Your task to perform on an android device: add a label to a message in the gmail app Image 0: 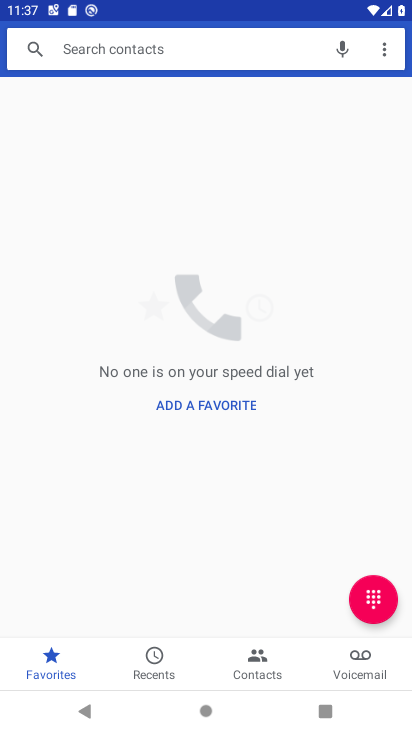
Step 0: press back button
Your task to perform on an android device: add a label to a message in the gmail app Image 1: 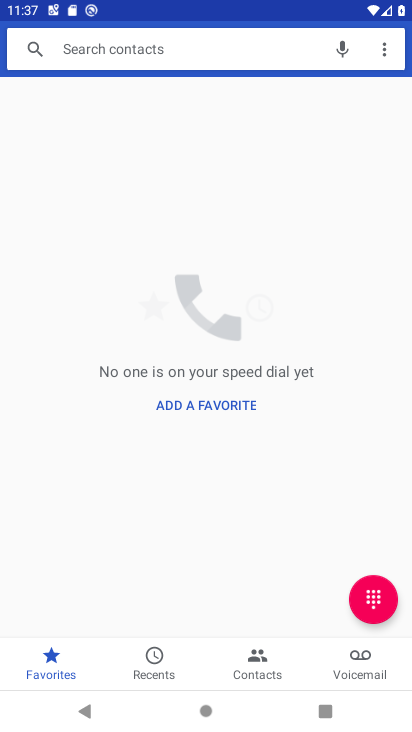
Step 1: press back button
Your task to perform on an android device: add a label to a message in the gmail app Image 2: 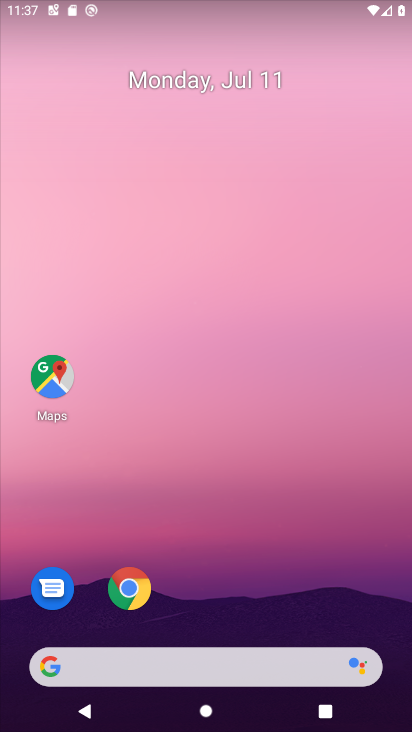
Step 2: drag from (289, 677) to (264, 177)
Your task to perform on an android device: add a label to a message in the gmail app Image 3: 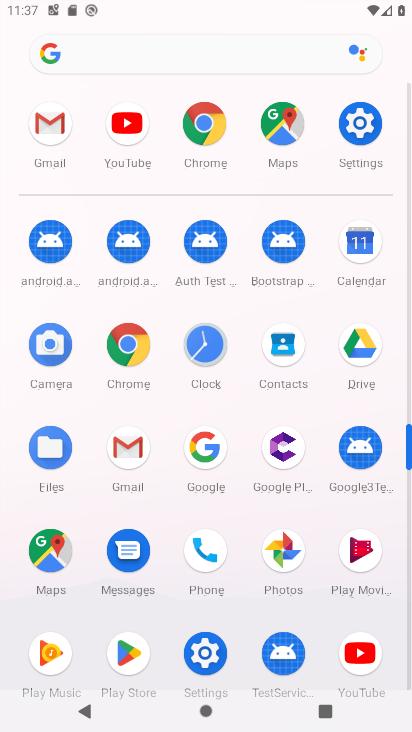
Step 3: click (125, 446)
Your task to perform on an android device: add a label to a message in the gmail app Image 4: 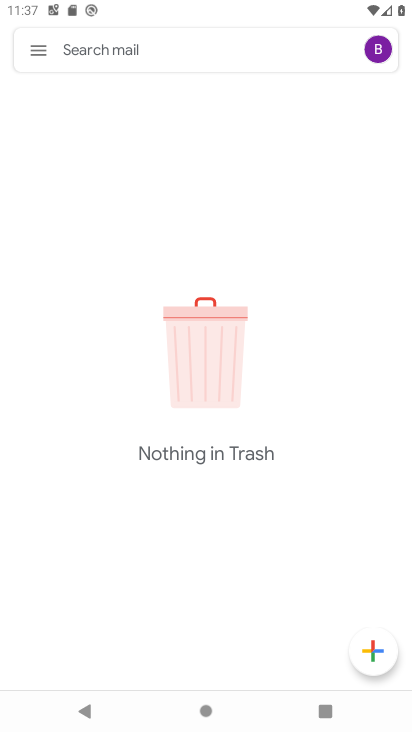
Step 4: click (42, 52)
Your task to perform on an android device: add a label to a message in the gmail app Image 5: 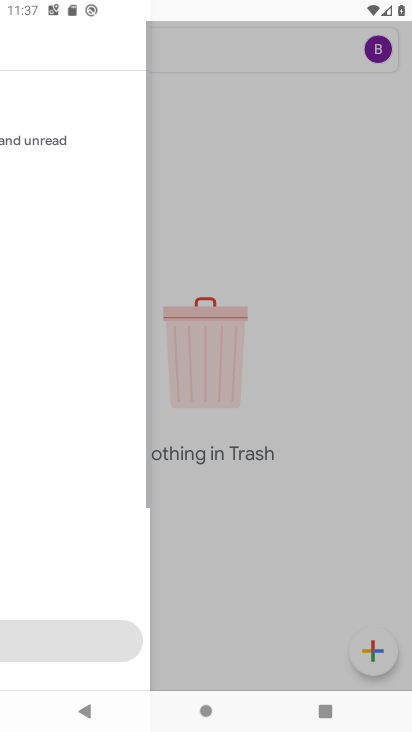
Step 5: click (44, 53)
Your task to perform on an android device: add a label to a message in the gmail app Image 6: 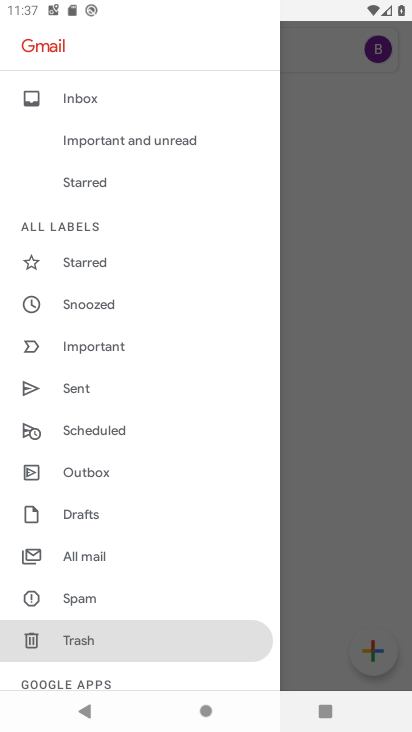
Step 6: click (76, 538)
Your task to perform on an android device: add a label to a message in the gmail app Image 7: 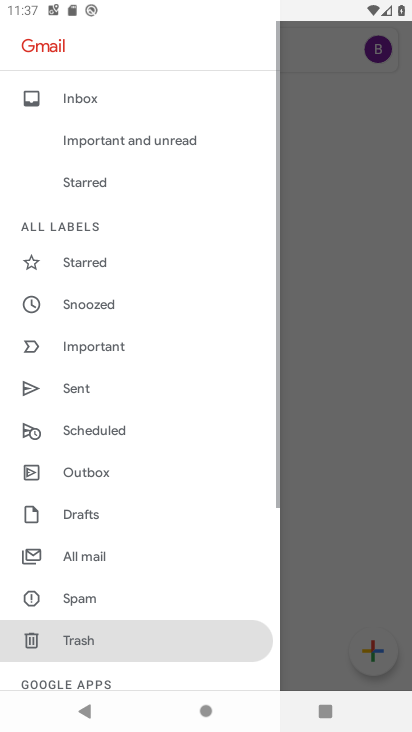
Step 7: click (76, 563)
Your task to perform on an android device: add a label to a message in the gmail app Image 8: 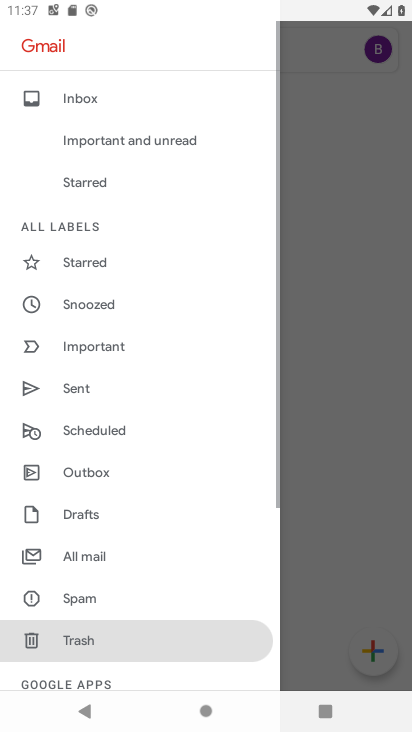
Step 8: click (75, 561)
Your task to perform on an android device: add a label to a message in the gmail app Image 9: 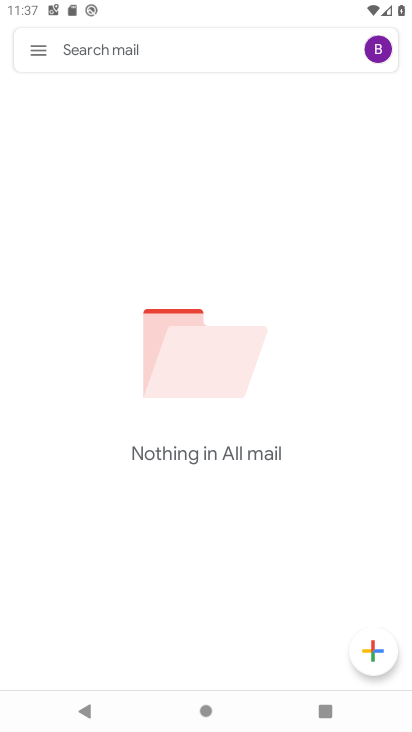
Step 9: task complete